Your task to perform on an android device: search for starred emails in the gmail app Image 0: 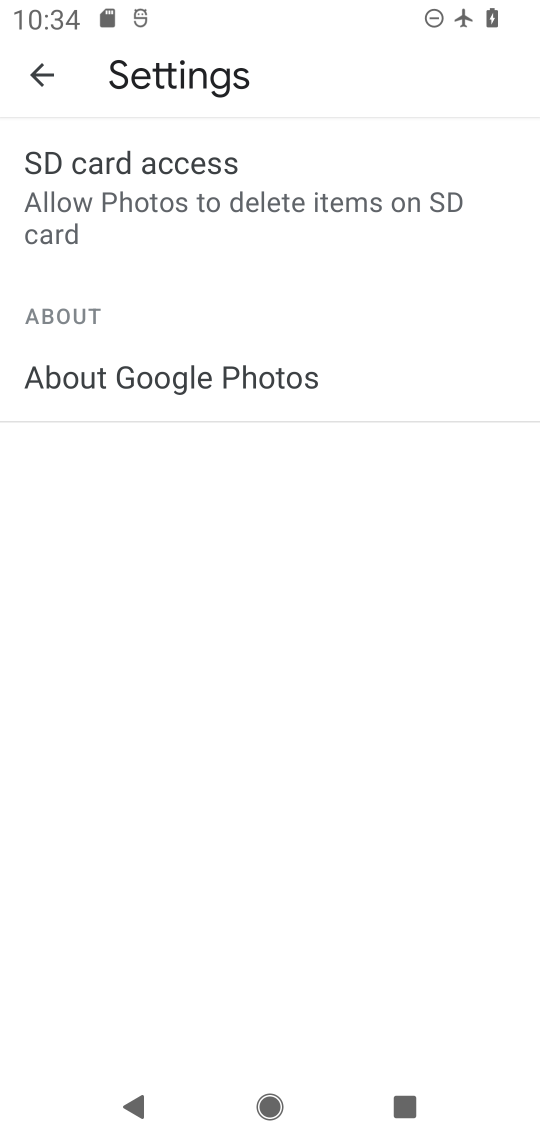
Step 0: press home button
Your task to perform on an android device: search for starred emails in the gmail app Image 1: 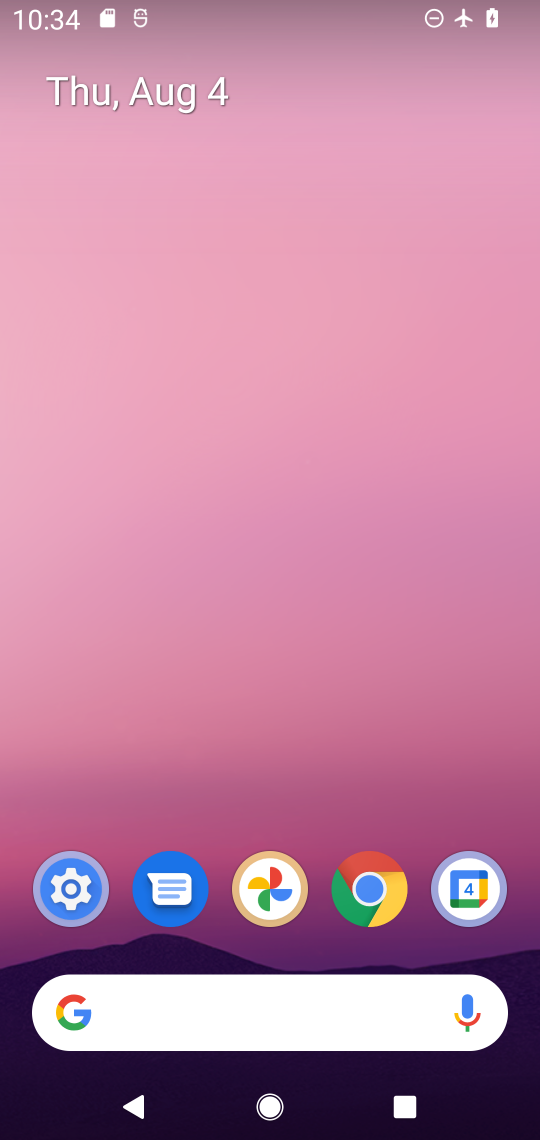
Step 1: drag from (304, 814) to (329, 250)
Your task to perform on an android device: search for starred emails in the gmail app Image 2: 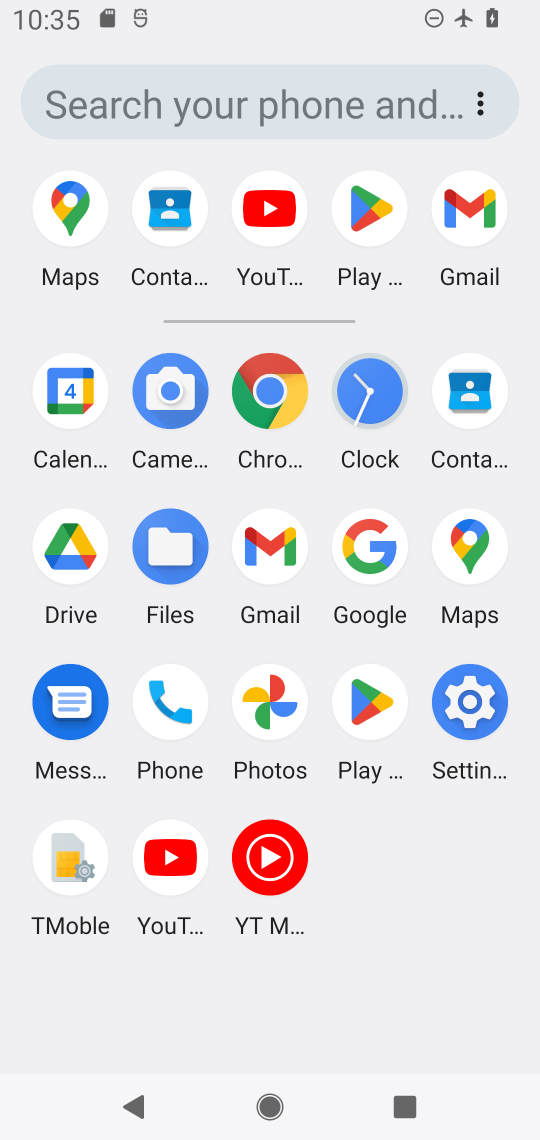
Step 2: click (271, 546)
Your task to perform on an android device: search for starred emails in the gmail app Image 3: 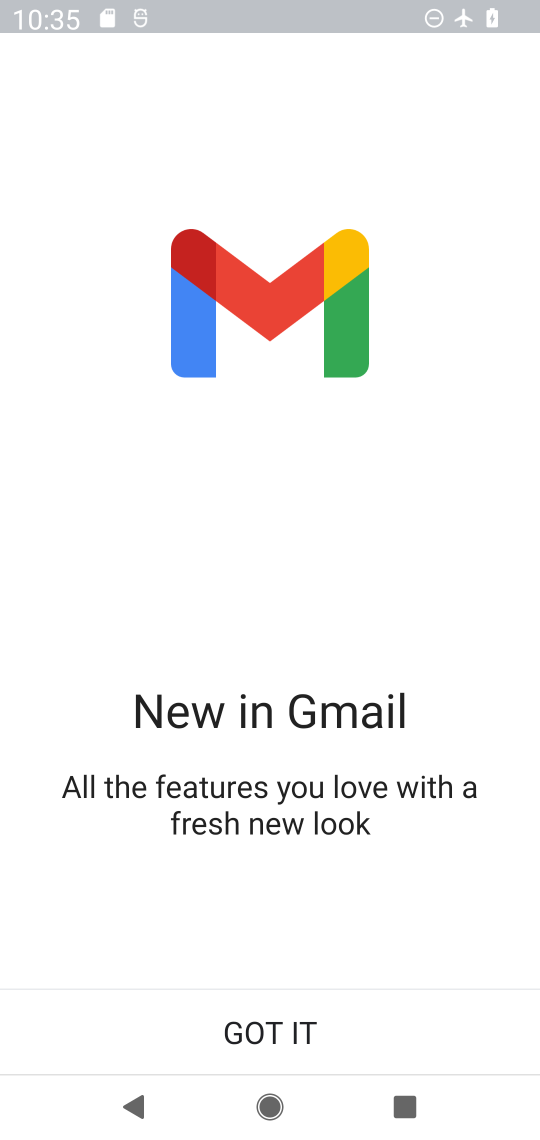
Step 3: click (291, 1028)
Your task to perform on an android device: search for starred emails in the gmail app Image 4: 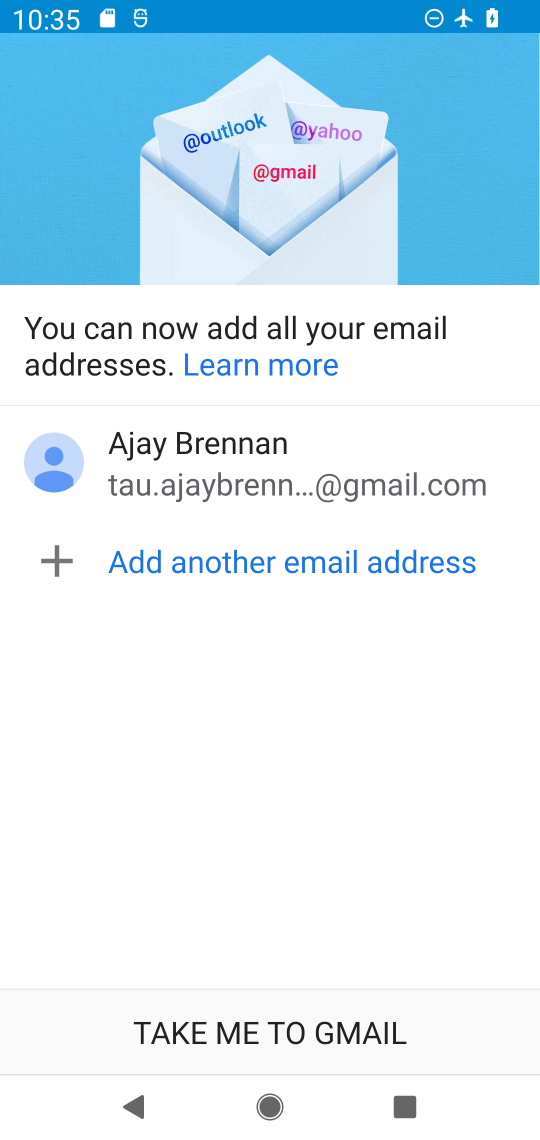
Step 4: click (291, 1028)
Your task to perform on an android device: search for starred emails in the gmail app Image 5: 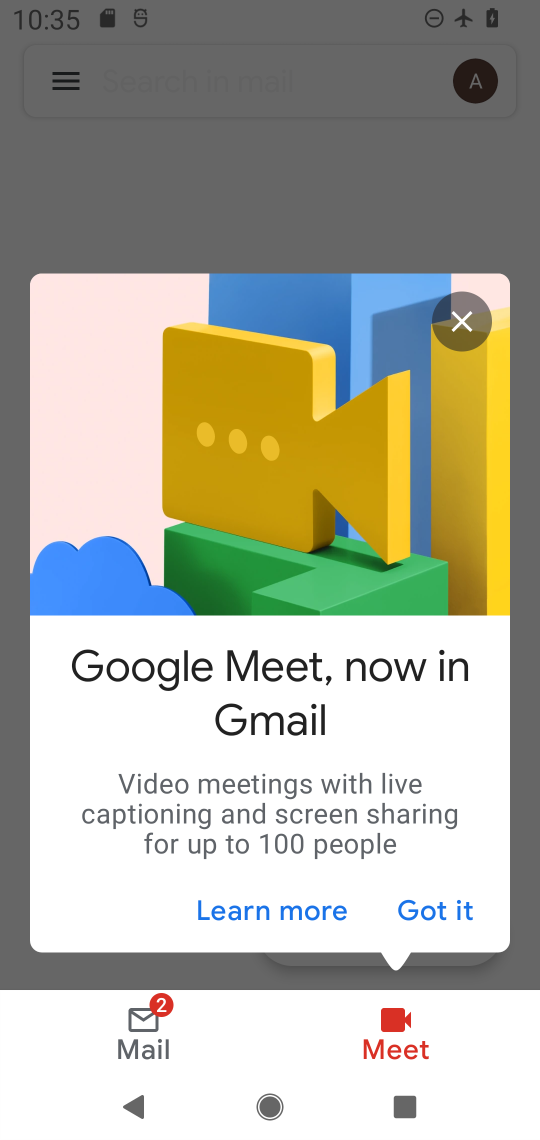
Step 5: click (459, 317)
Your task to perform on an android device: search for starred emails in the gmail app Image 6: 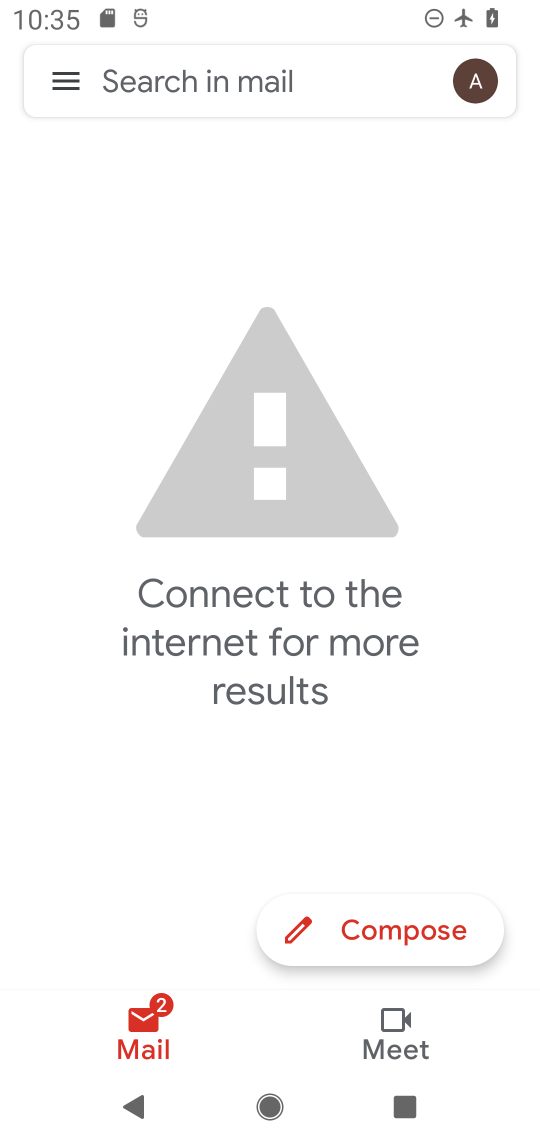
Step 6: task complete